Your task to perform on an android device: turn off translation in the chrome app Image 0: 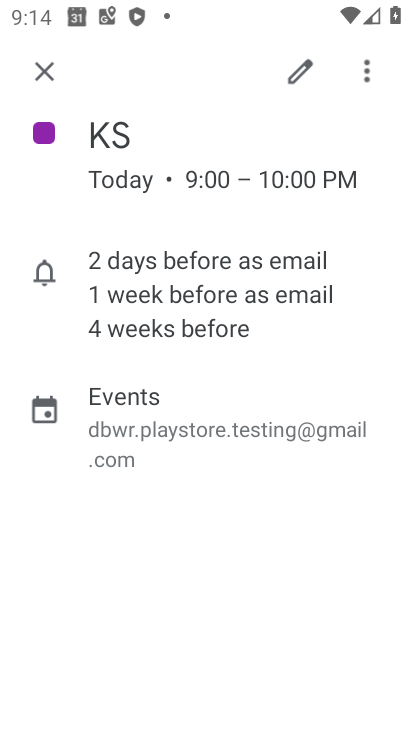
Step 0: press home button
Your task to perform on an android device: turn off translation in the chrome app Image 1: 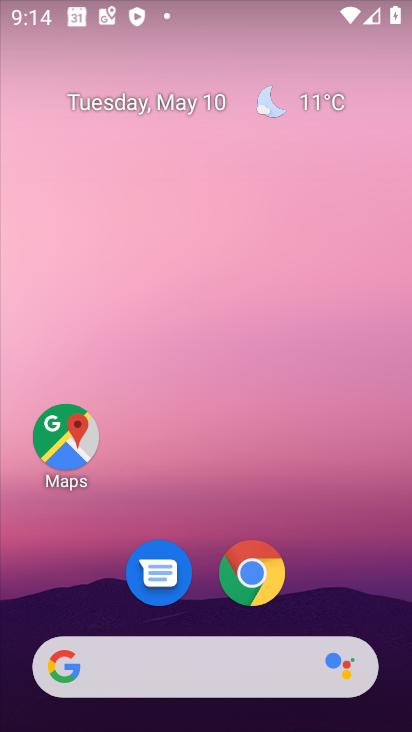
Step 1: click (224, 570)
Your task to perform on an android device: turn off translation in the chrome app Image 2: 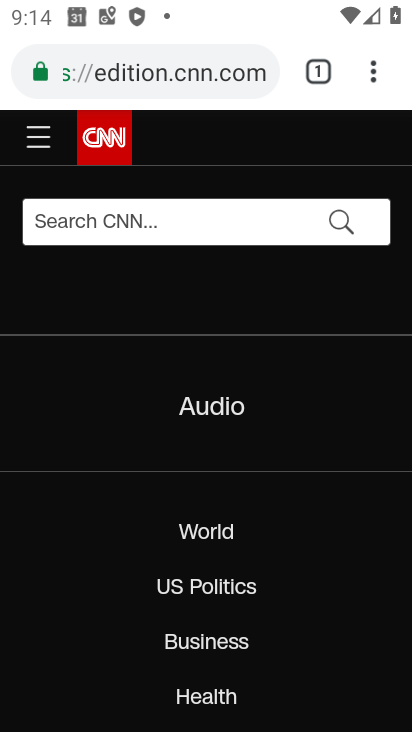
Step 2: drag from (369, 70) to (141, 582)
Your task to perform on an android device: turn off translation in the chrome app Image 3: 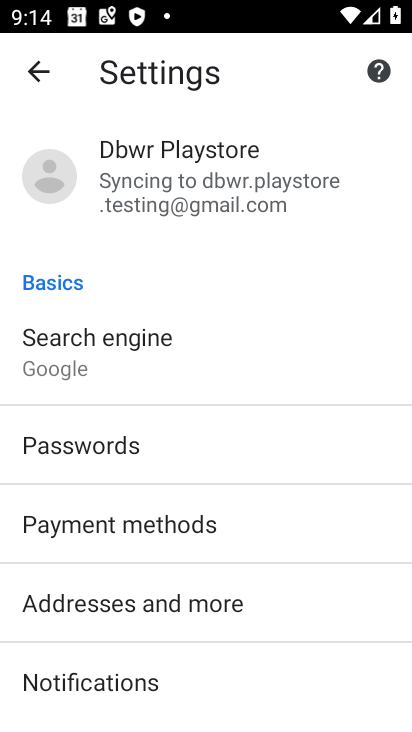
Step 3: drag from (215, 637) to (198, 216)
Your task to perform on an android device: turn off translation in the chrome app Image 4: 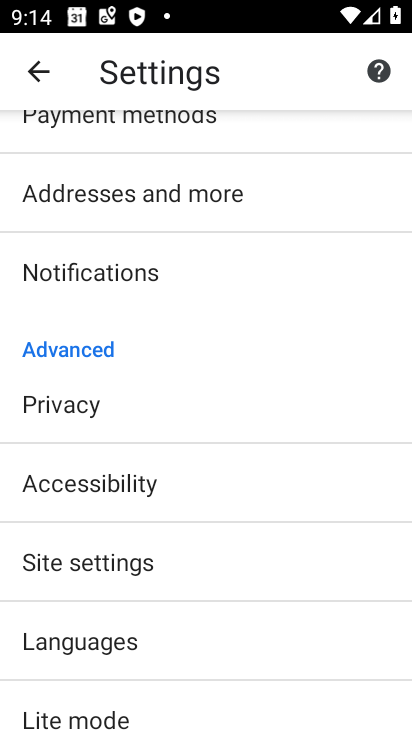
Step 4: click (119, 634)
Your task to perform on an android device: turn off translation in the chrome app Image 5: 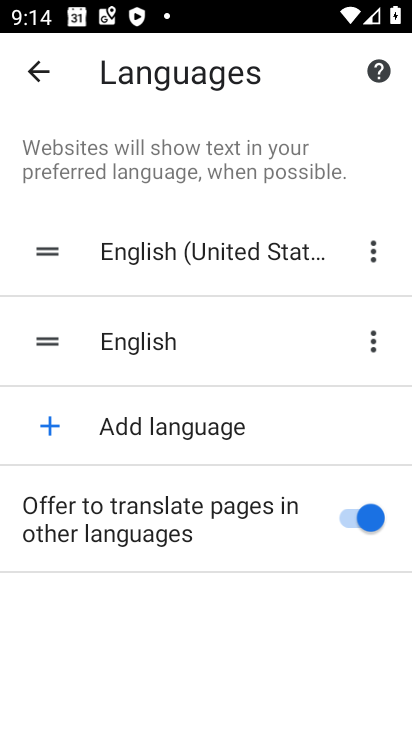
Step 5: click (382, 519)
Your task to perform on an android device: turn off translation in the chrome app Image 6: 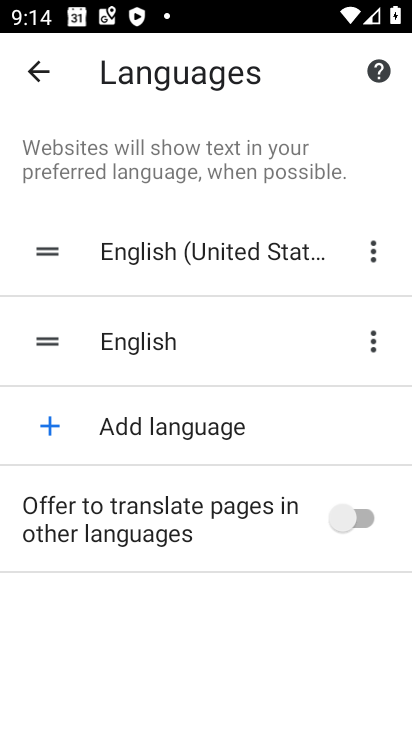
Step 6: task complete